Your task to perform on an android device: Open calendar and show me the third week of next month Image 0: 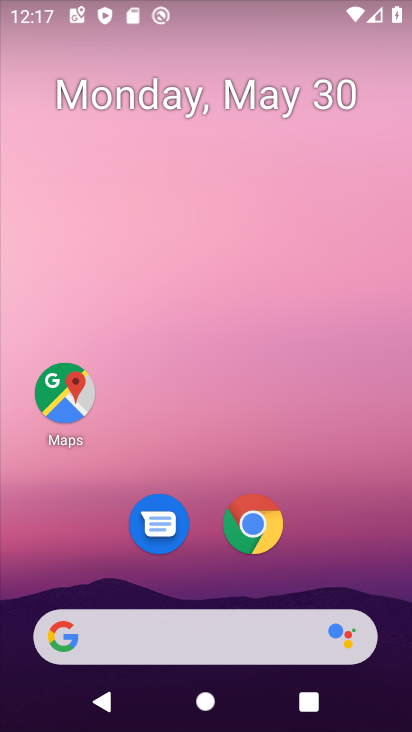
Step 0: drag from (323, 562) to (308, 12)
Your task to perform on an android device: Open calendar and show me the third week of next month Image 1: 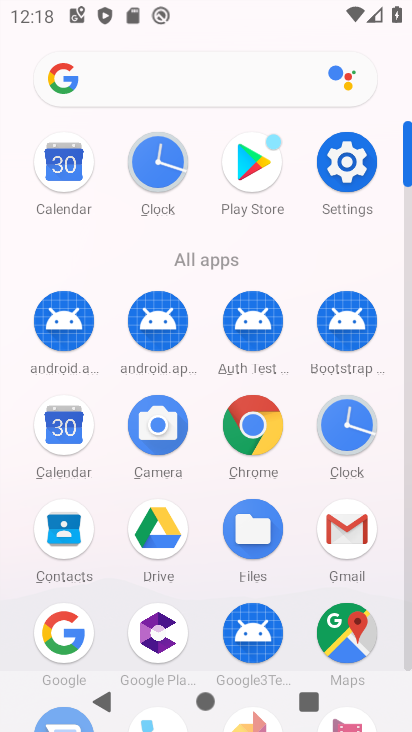
Step 1: click (63, 169)
Your task to perform on an android device: Open calendar and show me the third week of next month Image 2: 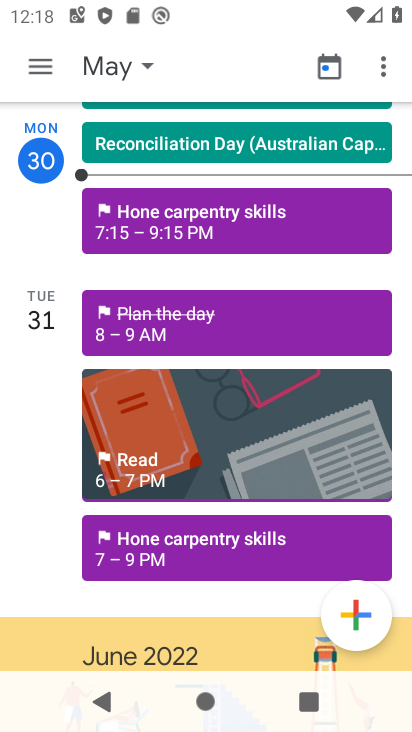
Step 2: click (33, 62)
Your task to perform on an android device: Open calendar and show me the third week of next month Image 3: 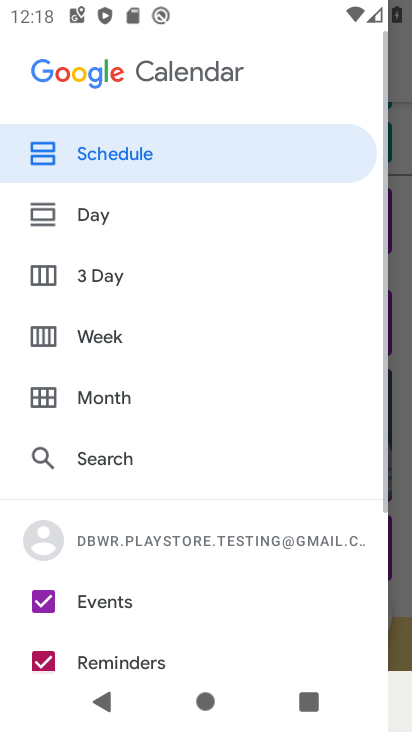
Step 3: click (48, 327)
Your task to perform on an android device: Open calendar and show me the third week of next month Image 4: 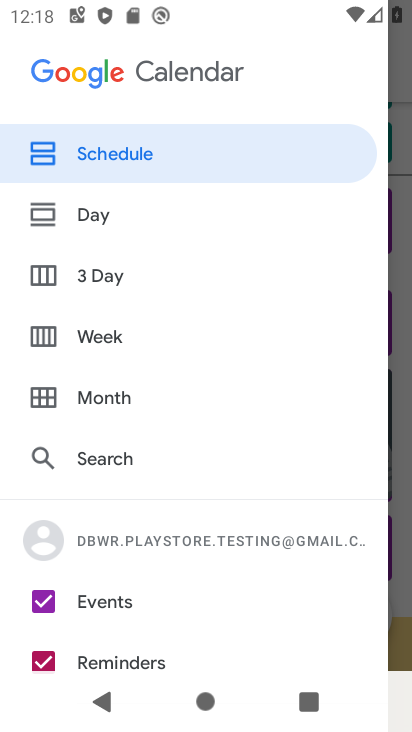
Step 4: click (48, 327)
Your task to perform on an android device: Open calendar and show me the third week of next month Image 5: 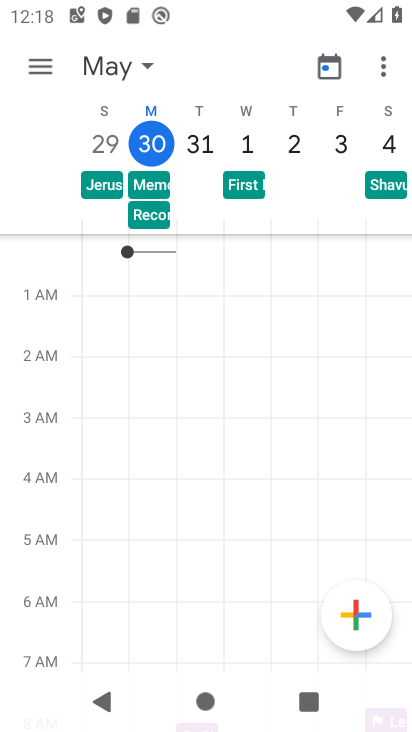
Step 5: task complete